Your task to perform on an android device: uninstall "Messages" Image 0: 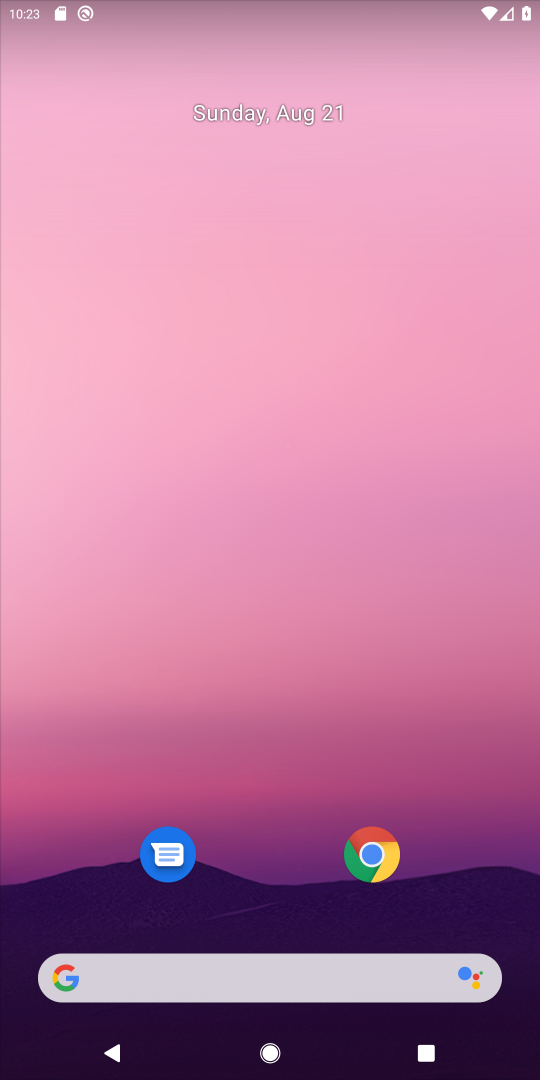
Step 0: drag from (302, 798) to (263, 2)
Your task to perform on an android device: uninstall "Messages" Image 1: 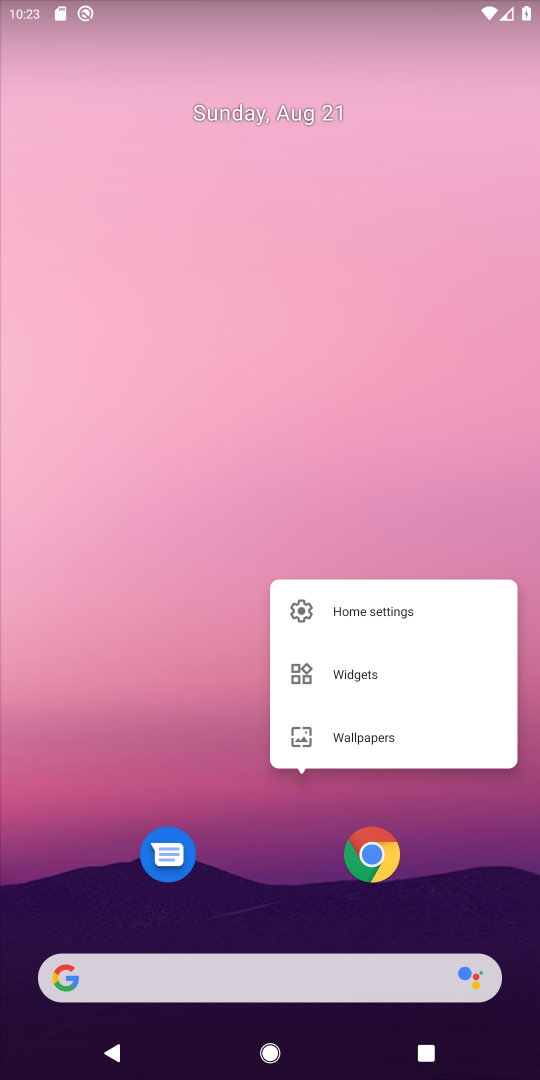
Step 1: click (198, 660)
Your task to perform on an android device: uninstall "Messages" Image 2: 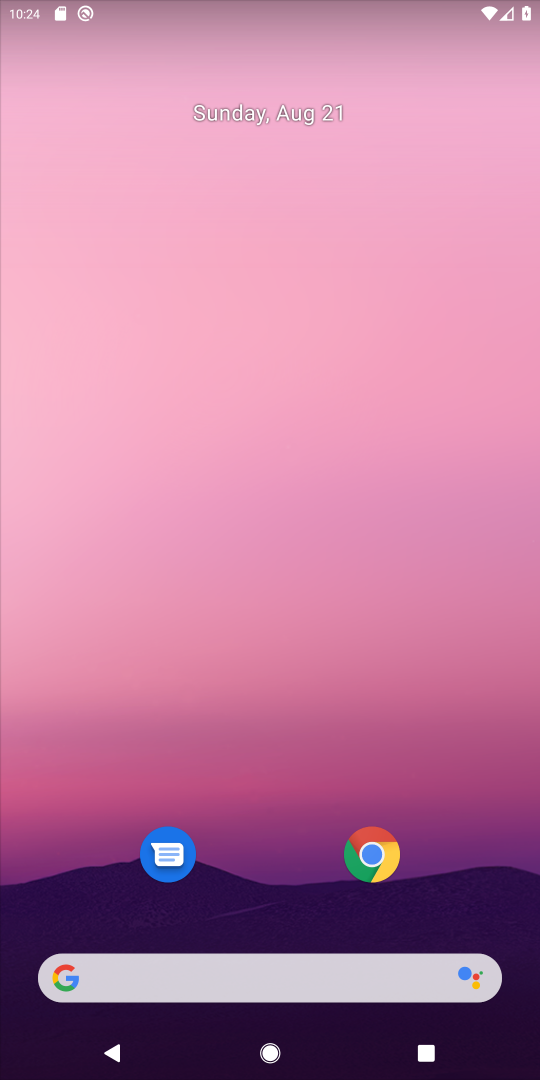
Step 2: drag from (257, 929) to (33, 75)
Your task to perform on an android device: uninstall "Messages" Image 3: 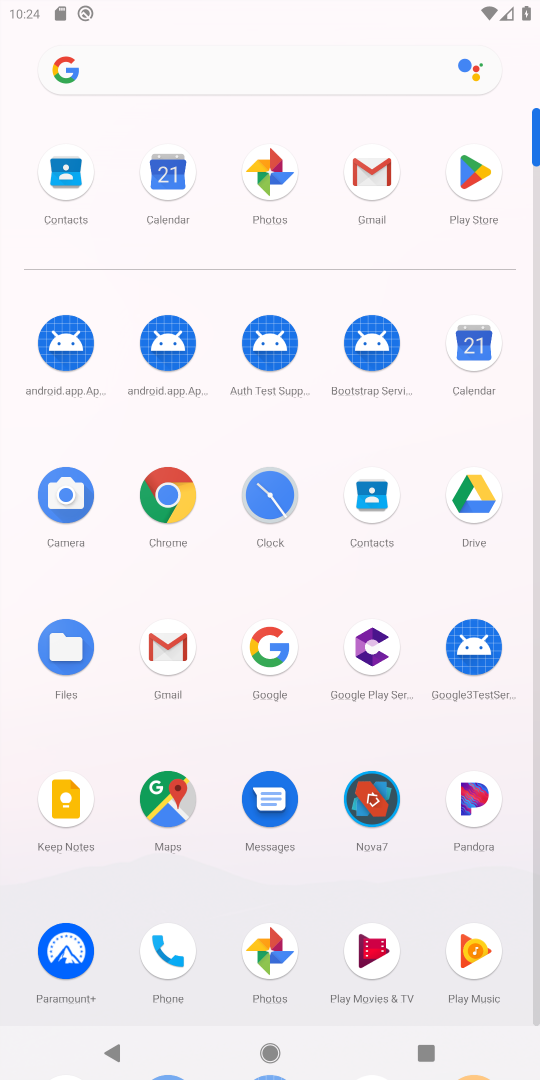
Step 3: click (464, 231)
Your task to perform on an android device: uninstall "Messages" Image 4: 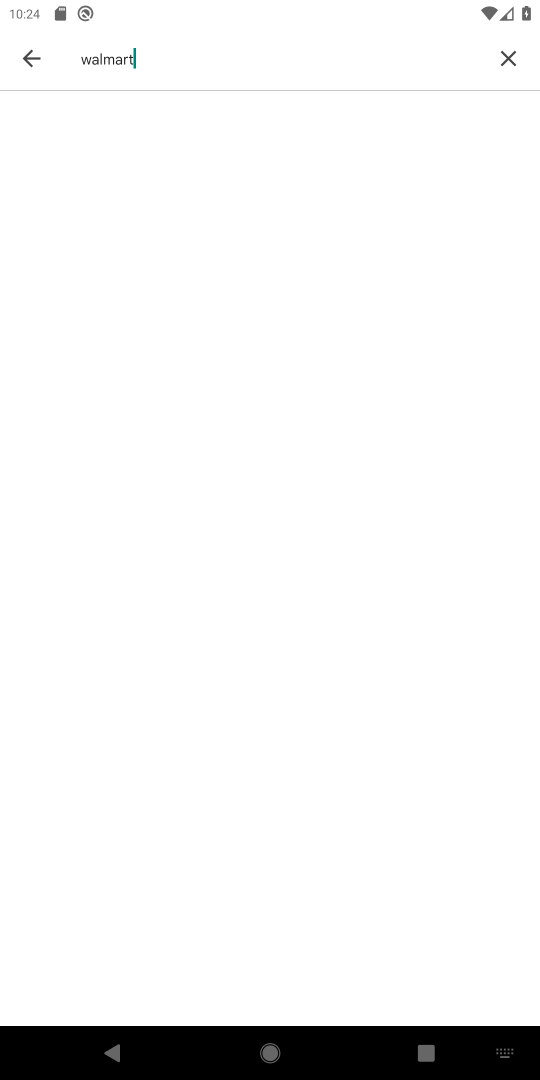
Step 4: click (500, 56)
Your task to perform on an android device: uninstall "Messages" Image 5: 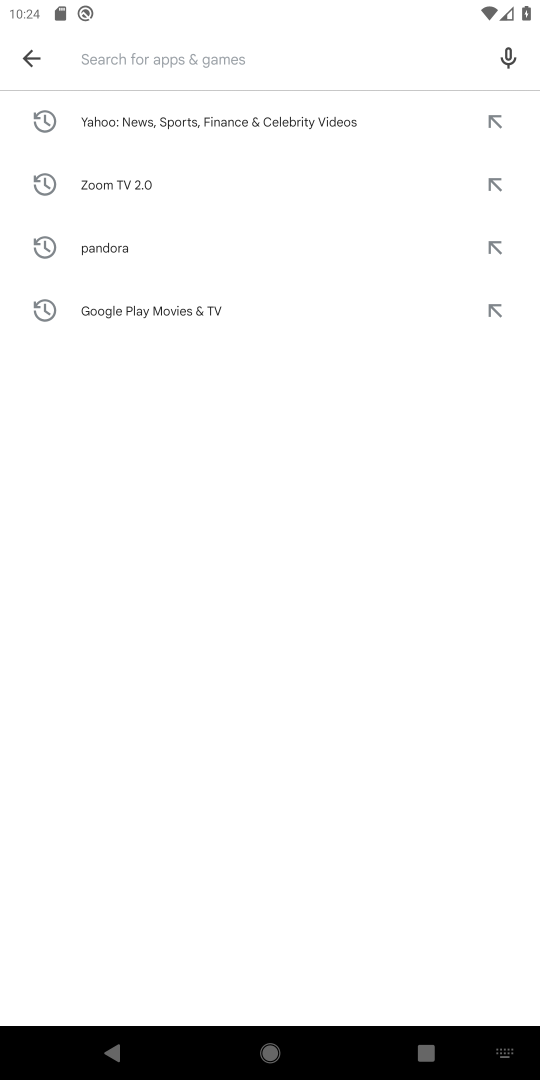
Step 5: type "message"
Your task to perform on an android device: uninstall "Messages" Image 6: 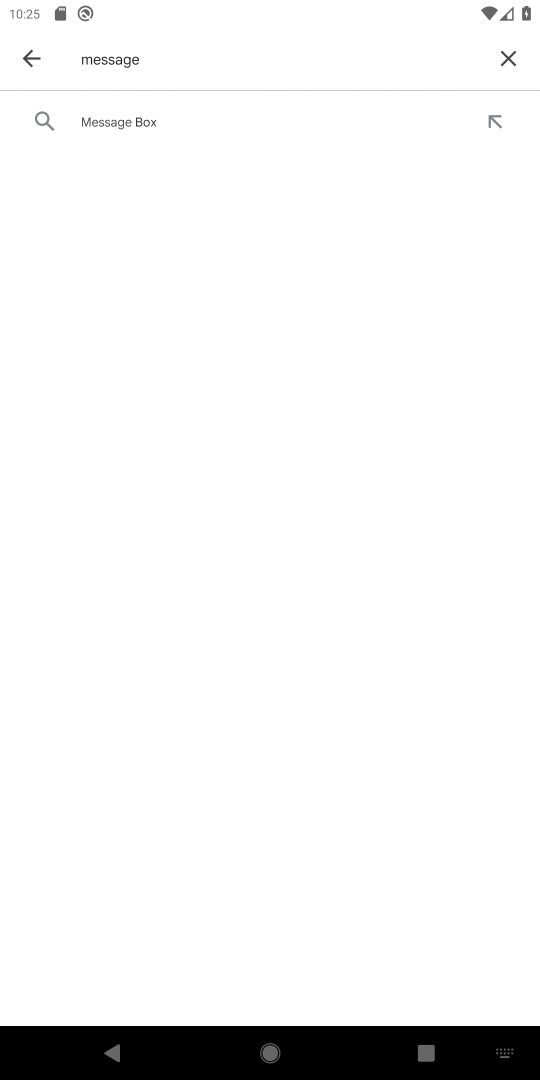
Step 6: click (218, 135)
Your task to perform on an android device: uninstall "Messages" Image 7: 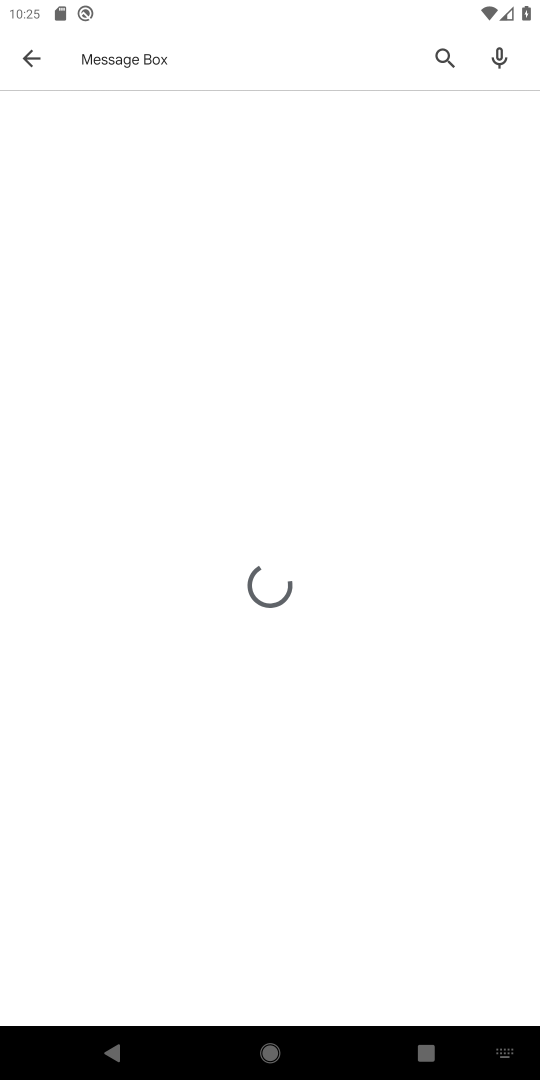
Step 7: task complete